Your task to perform on an android device: turn on javascript in the chrome app Image 0: 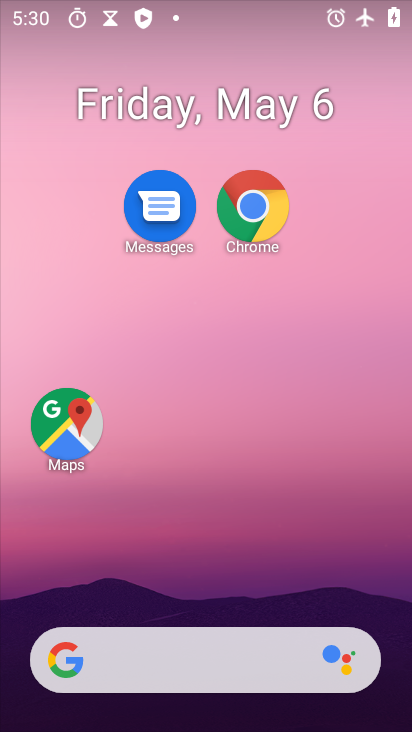
Step 0: click (258, 209)
Your task to perform on an android device: turn on javascript in the chrome app Image 1: 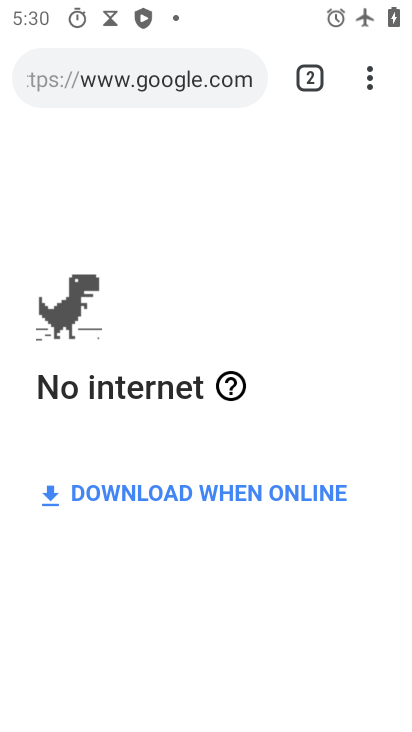
Step 1: click (373, 85)
Your task to perform on an android device: turn on javascript in the chrome app Image 2: 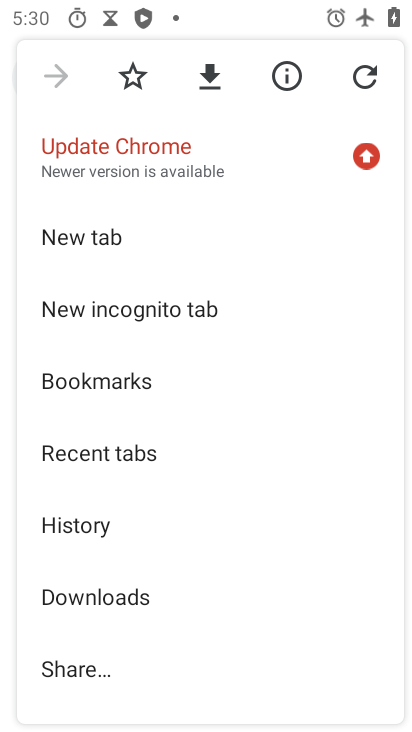
Step 2: drag from (115, 634) to (96, 269)
Your task to perform on an android device: turn on javascript in the chrome app Image 3: 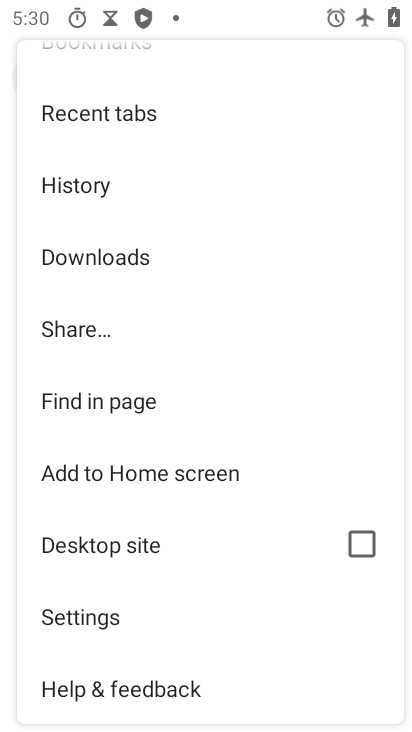
Step 3: click (107, 617)
Your task to perform on an android device: turn on javascript in the chrome app Image 4: 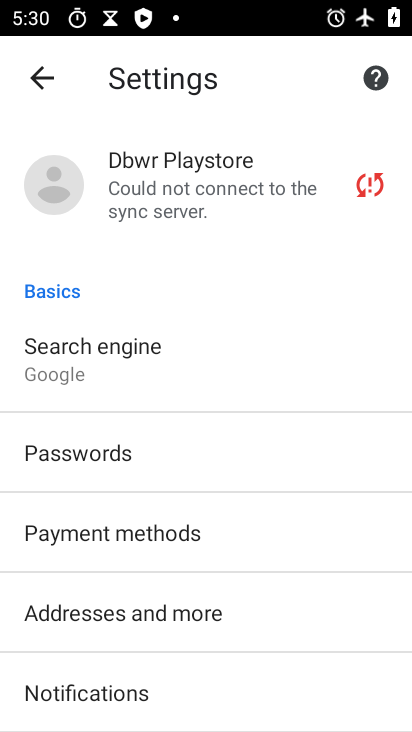
Step 4: drag from (82, 719) to (81, 416)
Your task to perform on an android device: turn on javascript in the chrome app Image 5: 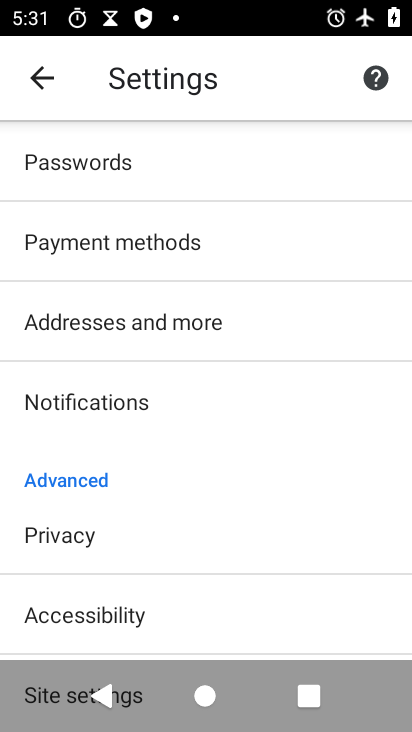
Step 5: drag from (94, 628) to (111, 284)
Your task to perform on an android device: turn on javascript in the chrome app Image 6: 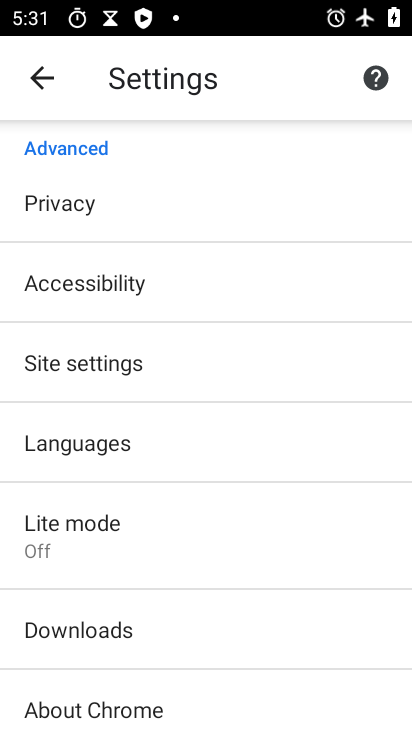
Step 6: click (72, 361)
Your task to perform on an android device: turn on javascript in the chrome app Image 7: 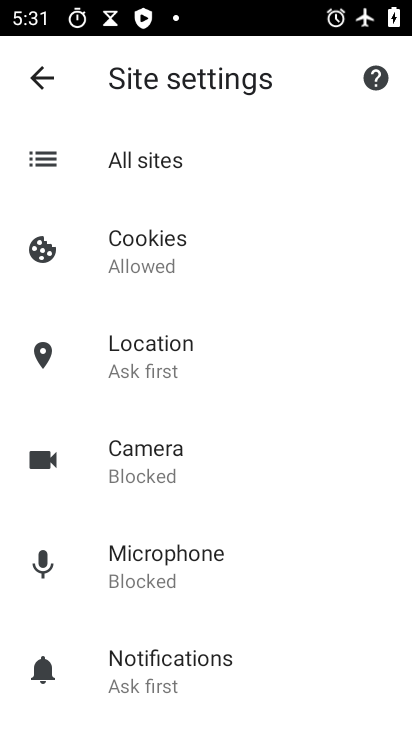
Step 7: drag from (171, 693) to (179, 296)
Your task to perform on an android device: turn on javascript in the chrome app Image 8: 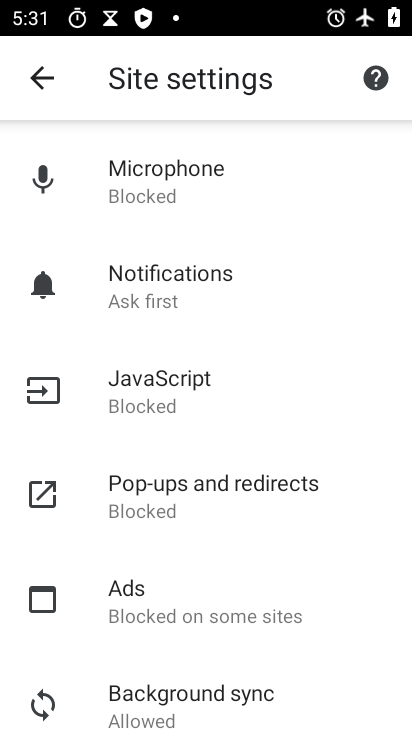
Step 8: click (170, 377)
Your task to perform on an android device: turn on javascript in the chrome app Image 9: 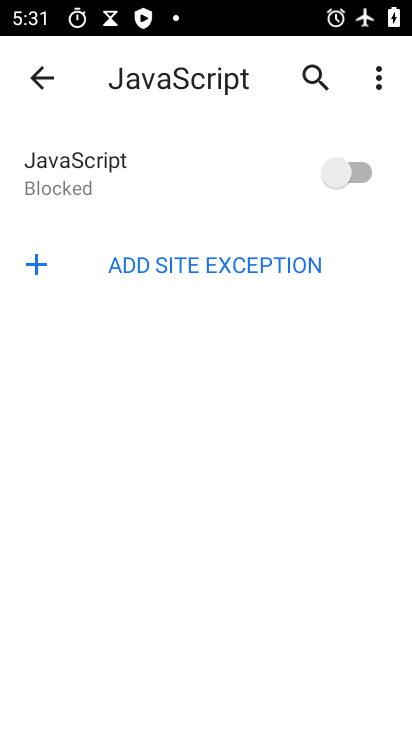
Step 9: click (348, 176)
Your task to perform on an android device: turn on javascript in the chrome app Image 10: 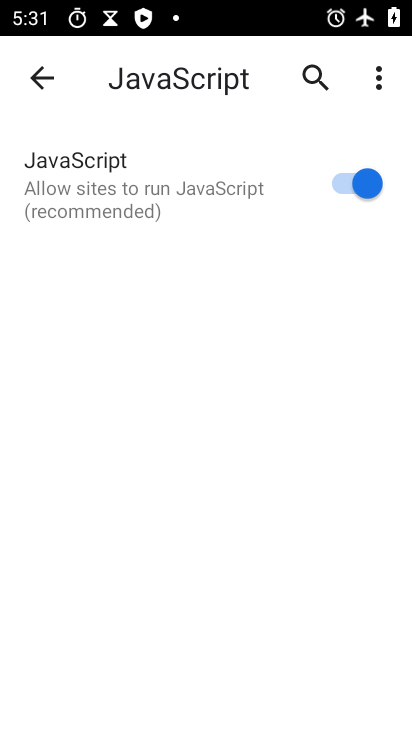
Step 10: task complete